Your task to perform on an android device: turn off data saver in the chrome app Image 0: 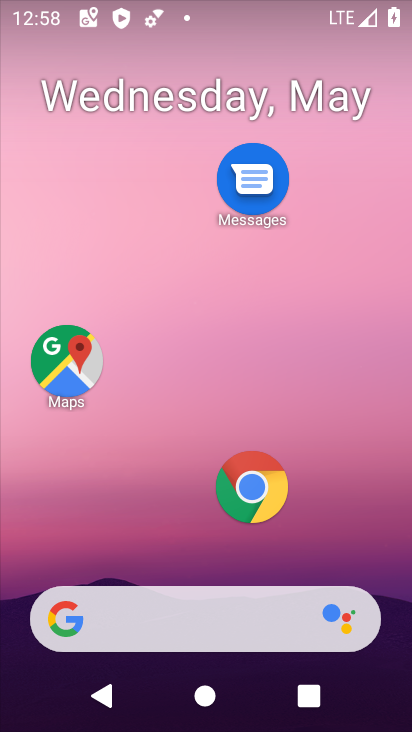
Step 0: drag from (130, 525) to (209, 117)
Your task to perform on an android device: turn off data saver in the chrome app Image 1: 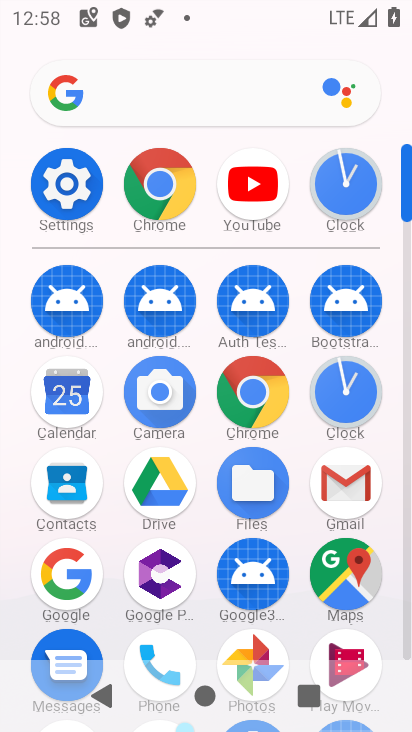
Step 1: click (246, 394)
Your task to perform on an android device: turn off data saver in the chrome app Image 2: 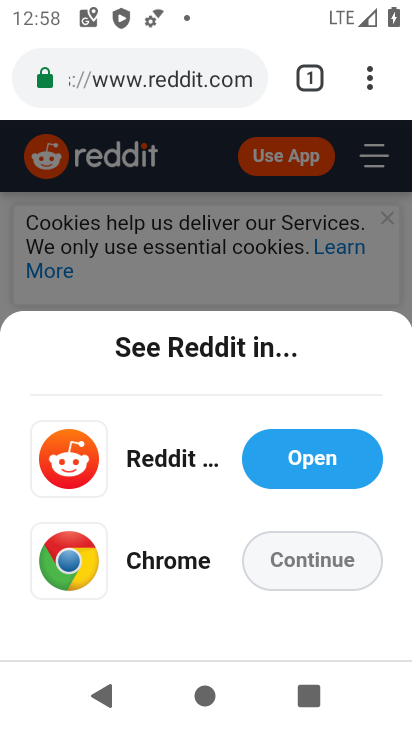
Step 2: click (372, 92)
Your task to perform on an android device: turn off data saver in the chrome app Image 3: 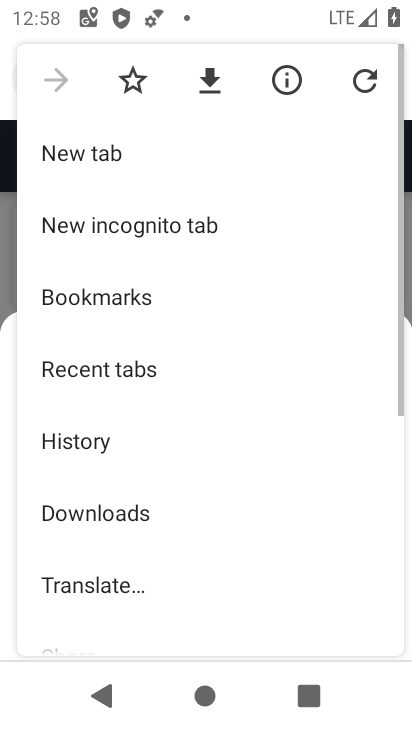
Step 3: drag from (126, 559) to (181, 282)
Your task to perform on an android device: turn off data saver in the chrome app Image 4: 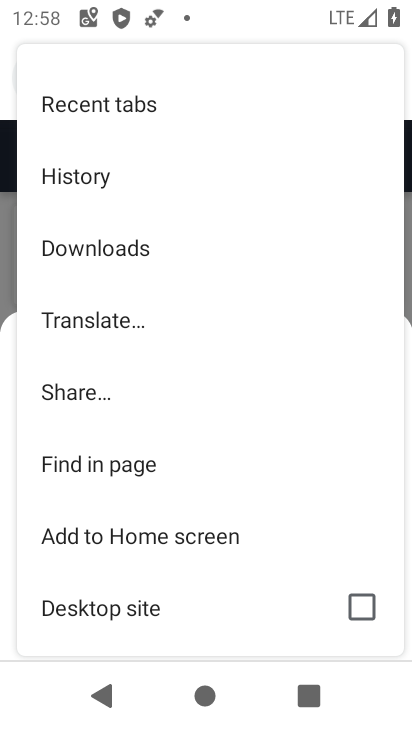
Step 4: drag from (128, 580) to (180, 344)
Your task to perform on an android device: turn off data saver in the chrome app Image 5: 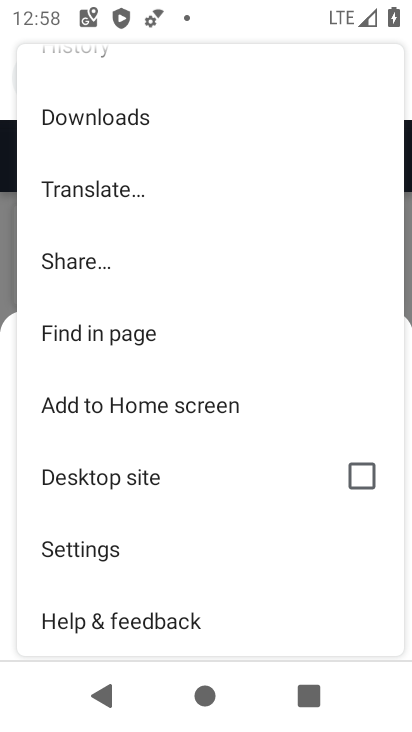
Step 5: click (99, 561)
Your task to perform on an android device: turn off data saver in the chrome app Image 6: 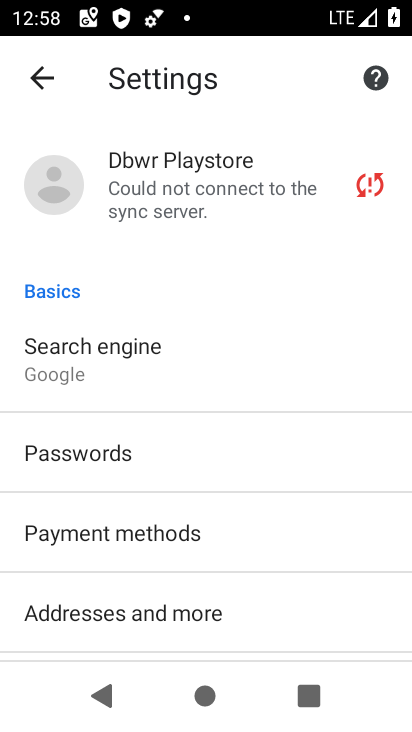
Step 6: drag from (199, 521) to (260, 169)
Your task to perform on an android device: turn off data saver in the chrome app Image 7: 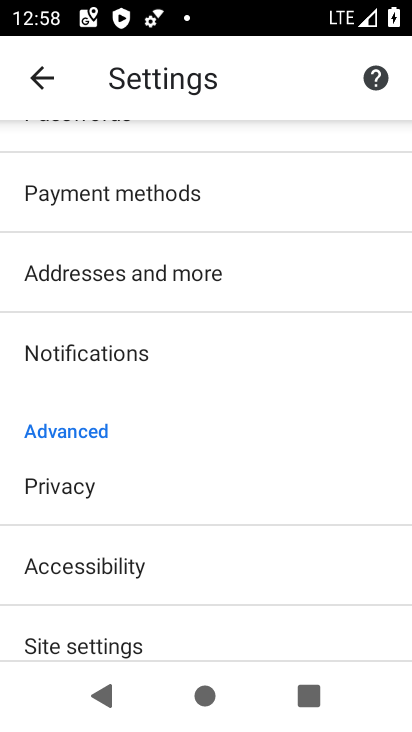
Step 7: drag from (169, 559) to (256, 265)
Your task to perform on an android device: turn off data saver in the chrome app Image 8: 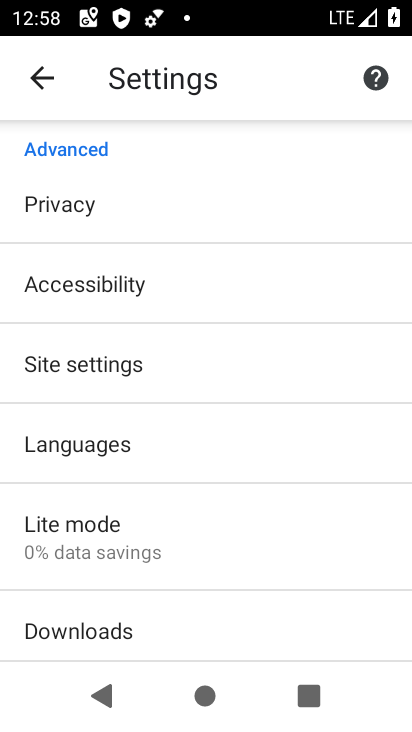
Step 8: click (139, 558)
Your task to perform on an android device: turn off data saver in the chrome app Image 9: 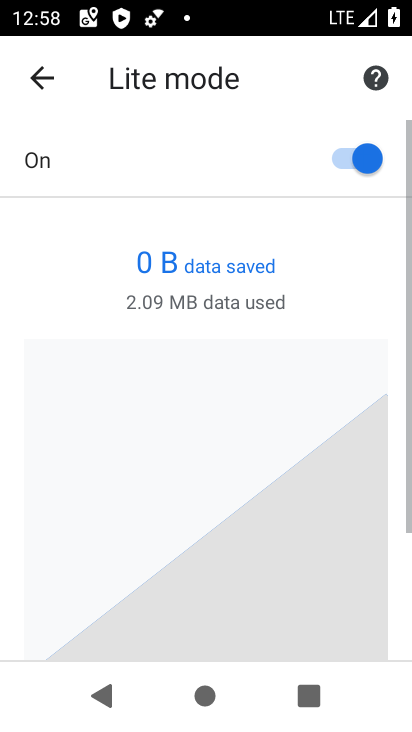
Step 9: click (332, 164)
Your task to perform on an android device: turn off data saver in the chrome app Image 10: 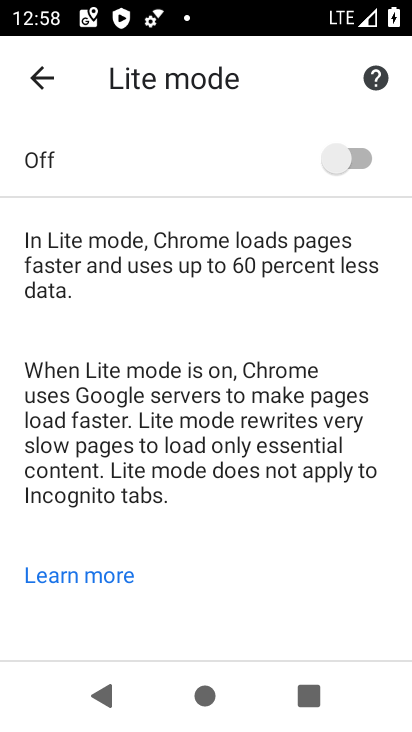
Step 10: task complete